Your task to perform on an android device: Go to location settings Image 0: 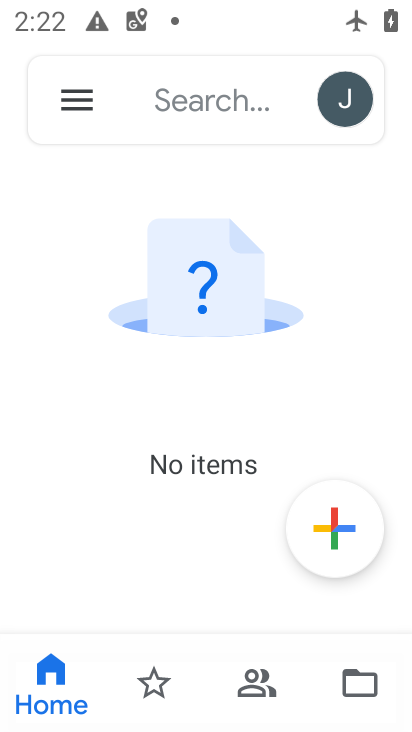
Step 0: press back button
Your task to perform on an android device: Go to location settings Image 1: 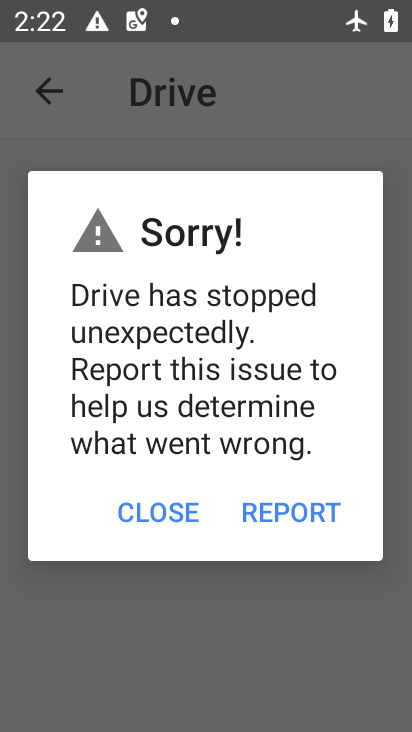
Step 1: press home button
Your task to perform on an android device: Go to location settings Image 2: 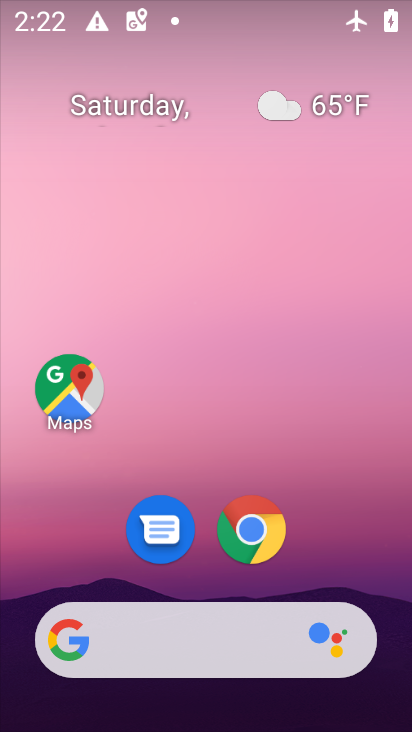
Step 2: drag from (367, 551) to (260, 15)
Your task to perform on an android device: Go to location settings Image 3: 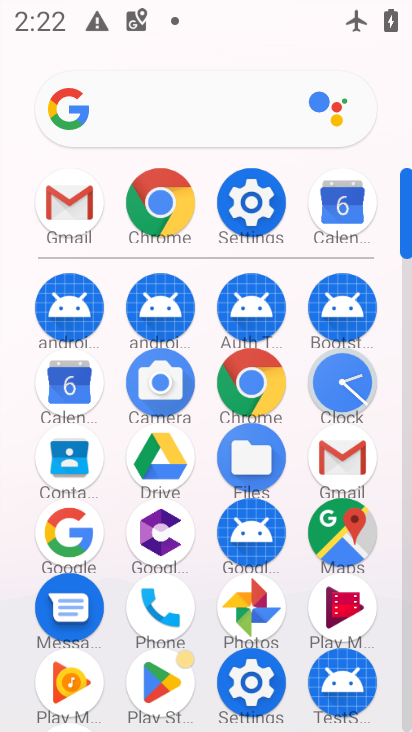
Step 3: click (273, 217)
Your task to perform on an android device: Go to location settings Image 4: 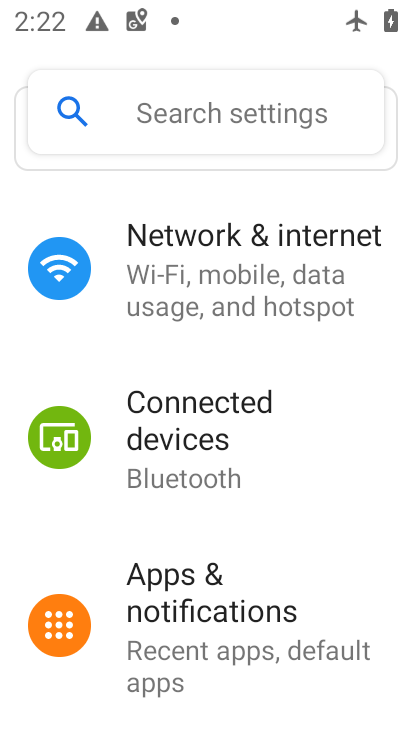
Step 4: drag from (287, 729) to (234, 324)
Your task to perform on an android device: Go to location settings Image 5: 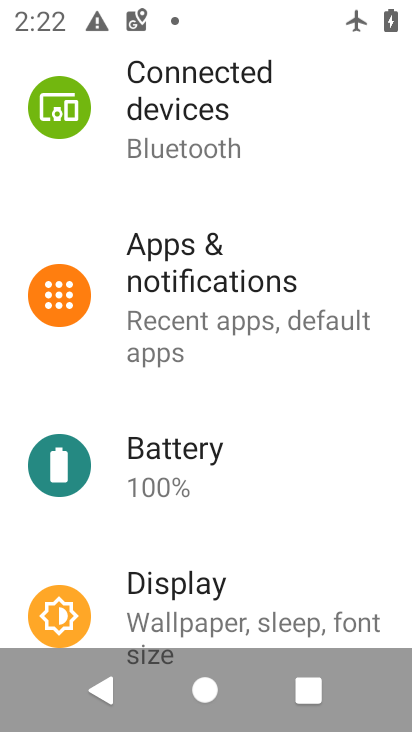
Step 5: drag from (301, 612) to (262, 246)
Your task to perform on an android device: Go to location settings Image 6: 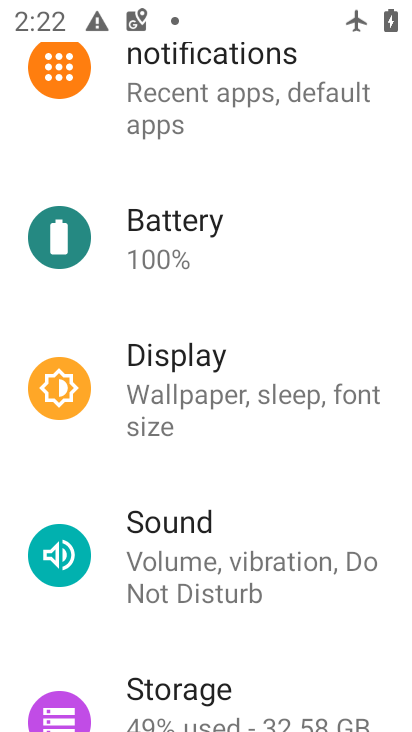
Step 6: drag from (320, 654) to (265, 129)
Your task to perform on an android device: Go to location settings Image 7: 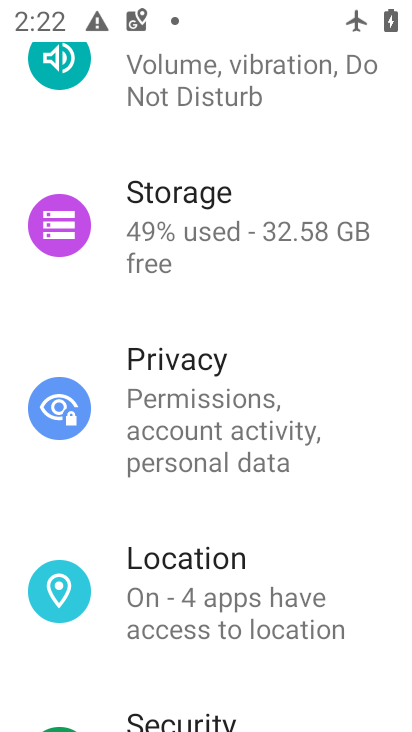
Step 7: click (318, 571)
Your task to perform on an android device: Go to location settings Image 8: 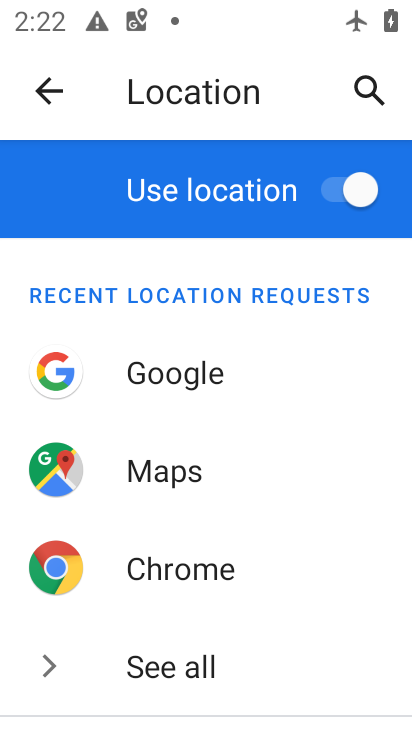
Step 8: task complete